Your task to perform on an android device: check google app version Image 0: 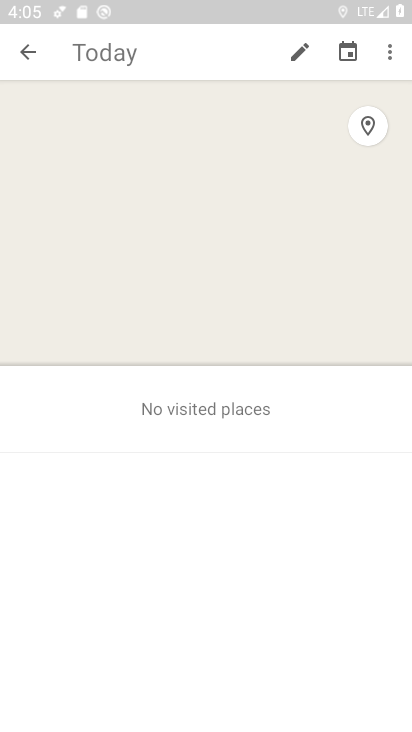
Step 0: press home button
Your task to perform on an android device: check google app version Image 1: 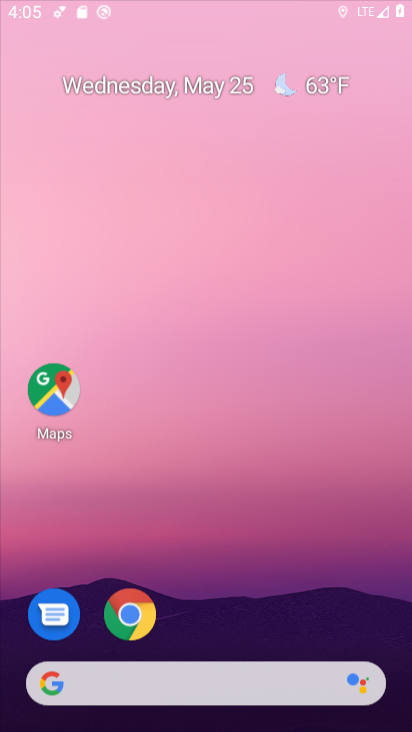
Step 1: drag from (281, 594) to (139, 37)
Your task to perform on an android device: check google app version Image 2: 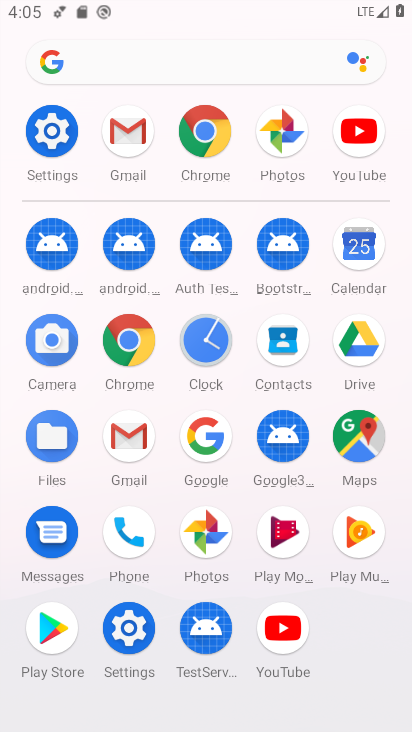
Step 2: click (210, 440)
Your task to perform on an android device: check google app version Image 3: 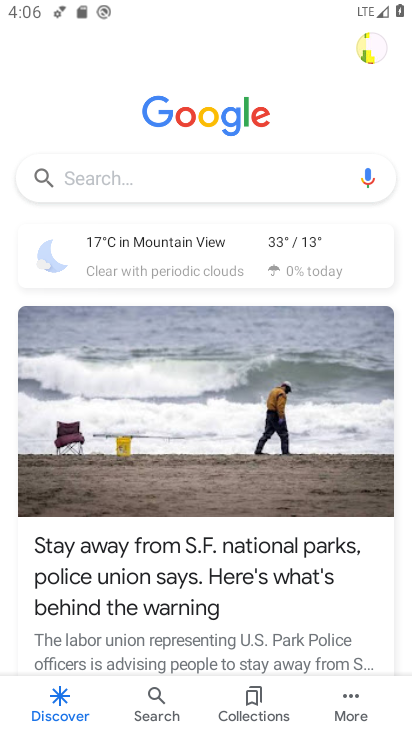
Step 3: click (355, 698)
Your task to perform on an android device: check google app version Image 4: 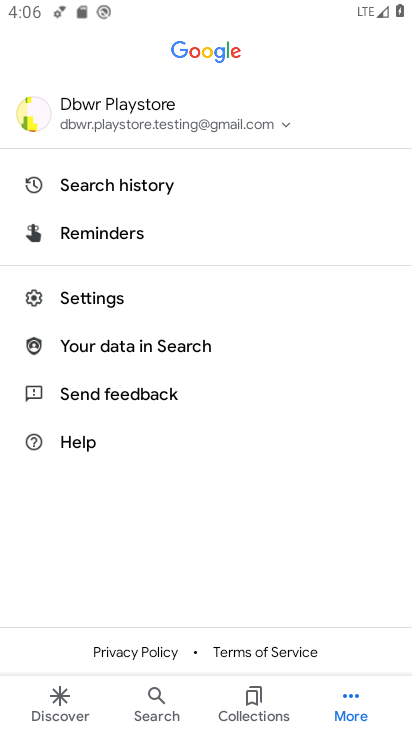
Step 4: click (117, 310)
Your task to perform on an android device: check google app version Image 5: 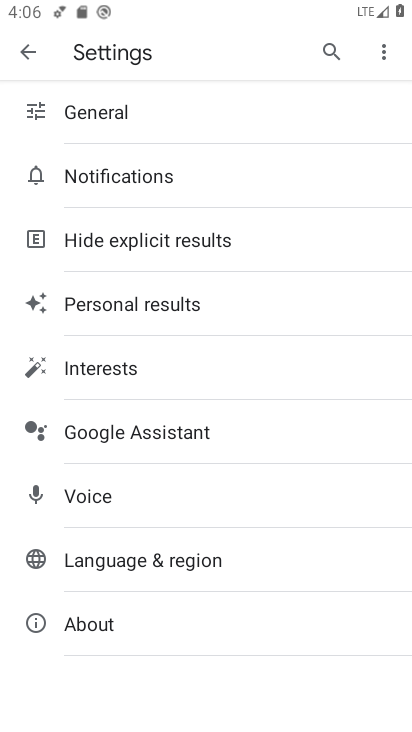
Step 5: click (145, 614)
Your task to perform on an android device: check google app version Image 6: 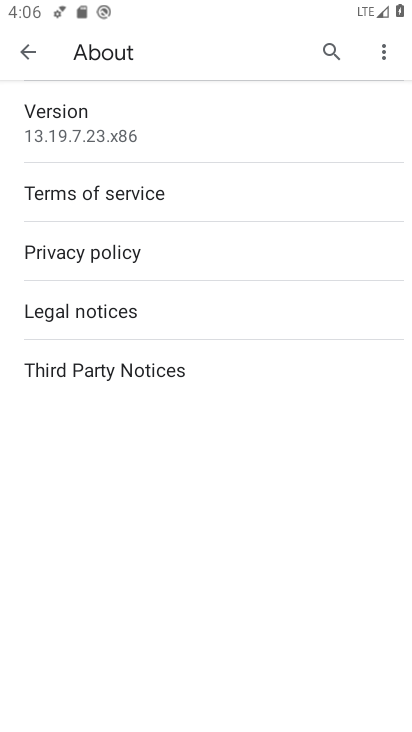
Step 6: click (112, 113)
Your task to perform on an android device: check google app version Image 7: 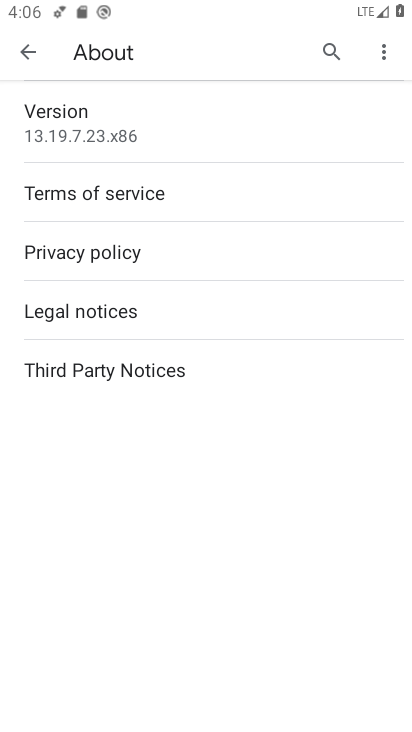
Step 7: task complete